Your task to perform on an android device: Open calendar and show me the first week of next month Image 0: 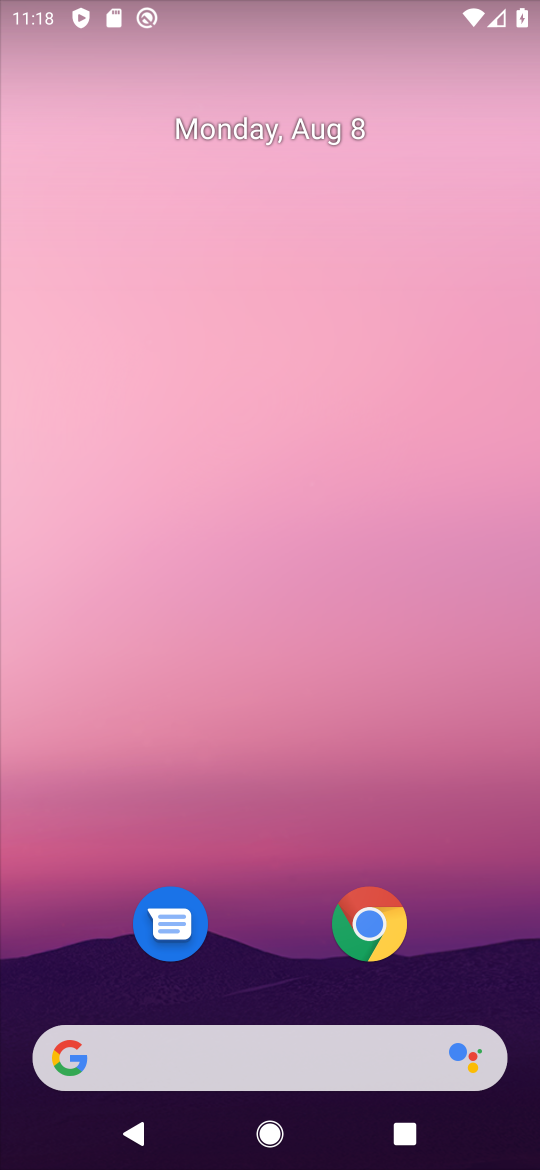
Step 0: drag from (276, 1000) to (278, 201)
Your task to perform on an android device: Open calendar and show me the first week of next month Image 1: 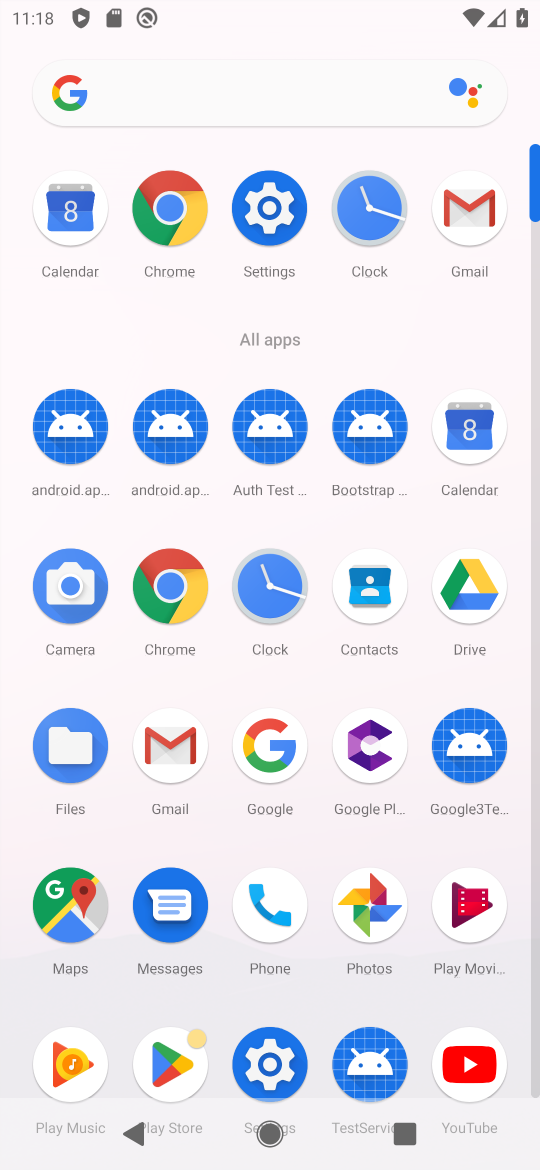
Step 1: click (462, 431)
Your task to perform on an android device: Open calendar and show me the first week of next month Image 2: 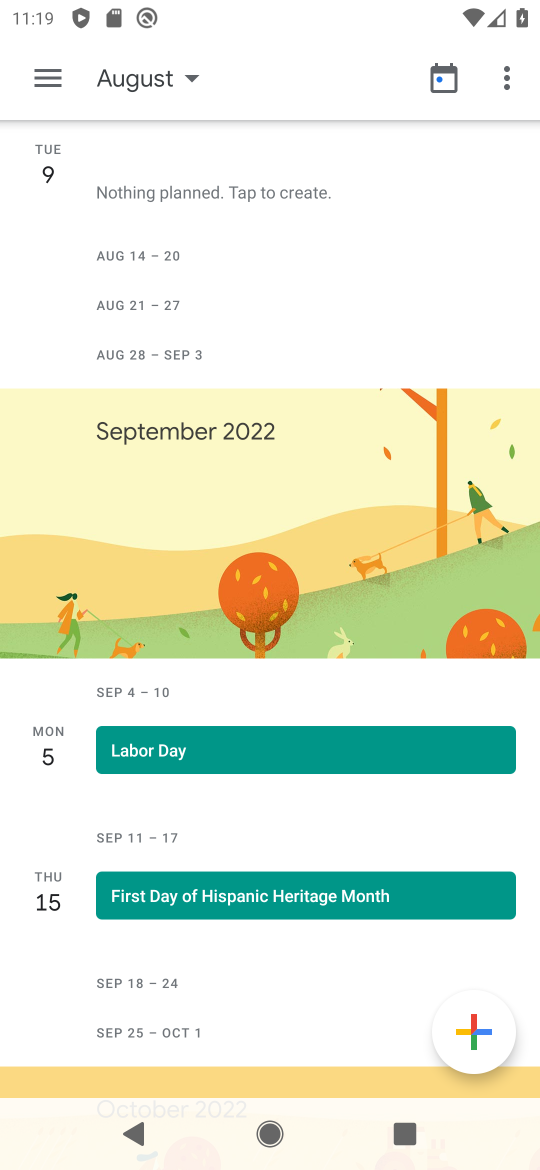
Step 2: click (46, 76)
Your task to perform on an android device: Open calendar and show me the first week of next month Image 3: 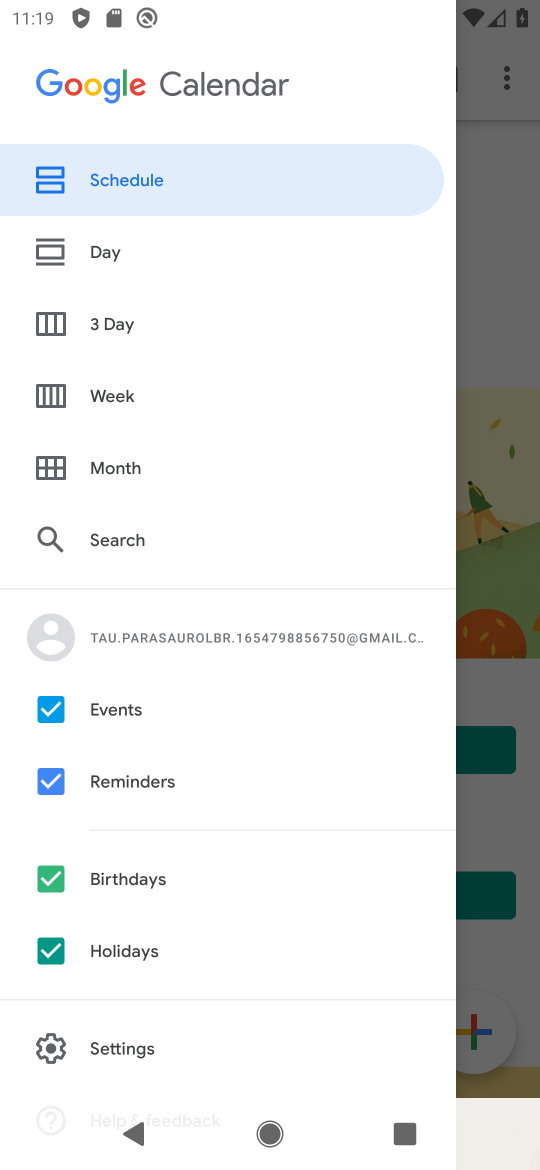
Step 3: click (103, 414)
Your task to perform on an android device: Open calendar and show me the first week of next month Image 4: 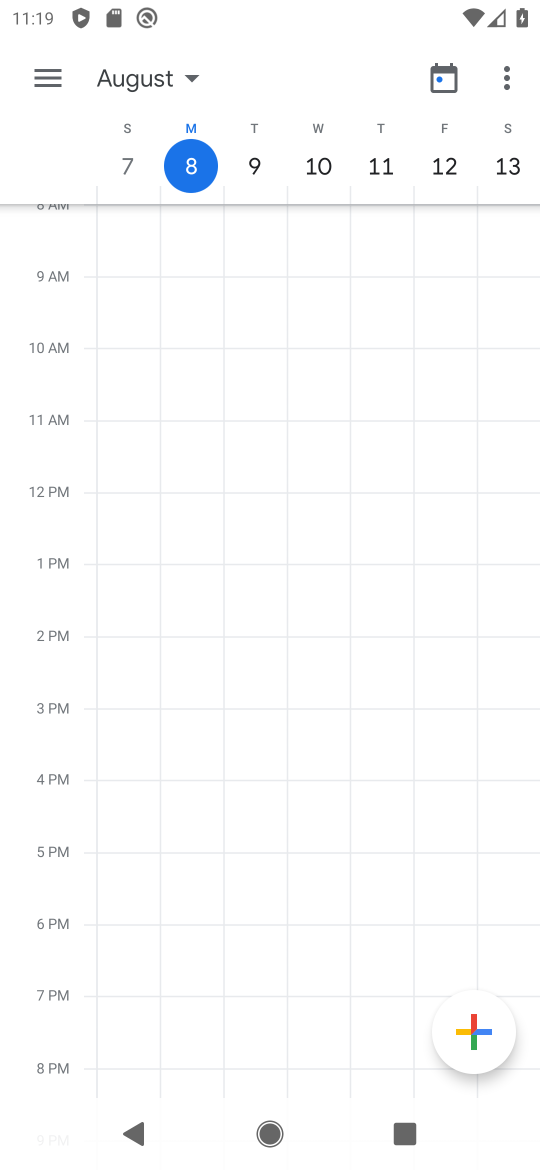
Step 4: task complete